Your task to perform on an android device: Open maps Image 0: 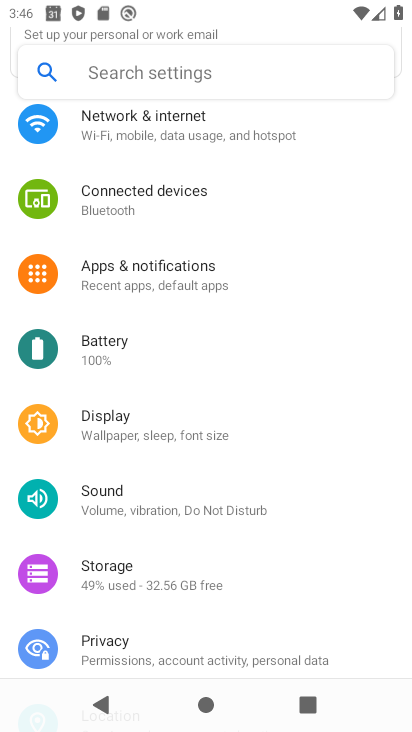
Step 0: press home button
Your task to perform on an android device: Open maps Image 1: 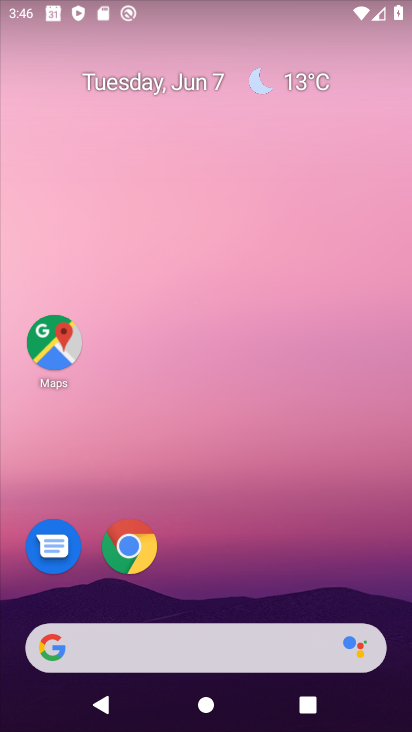
Step 1: click (35, 350)
Your task to perform on an android device: Open maps Image 2: 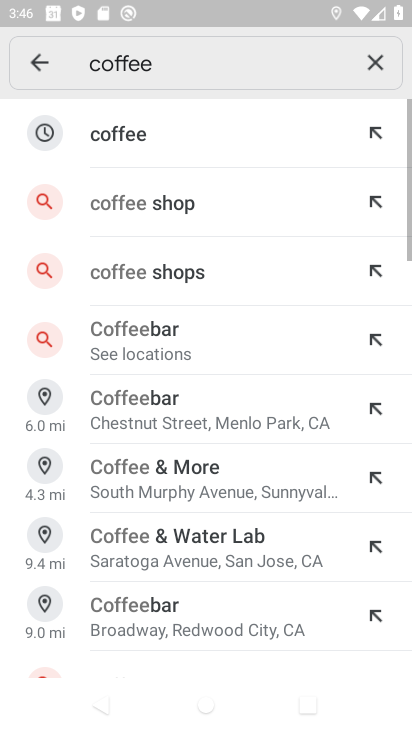
Step 2: click (49, 73)
Your task to perform on an android device: Open maps Image 3: 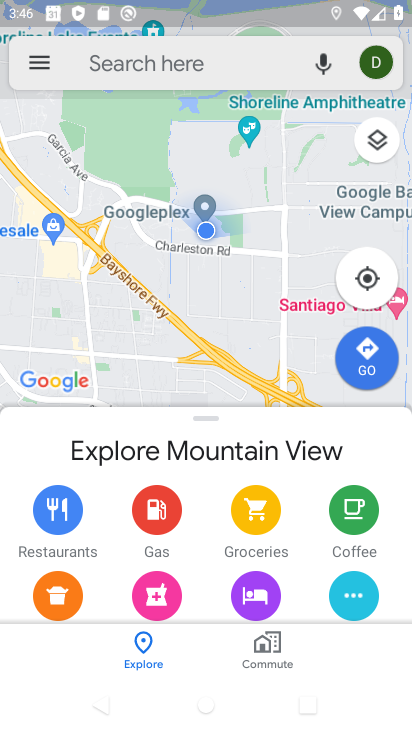
Step 3: task complete